Your task to perform on an android device: turn smart compose on in the gmail app Image 0: 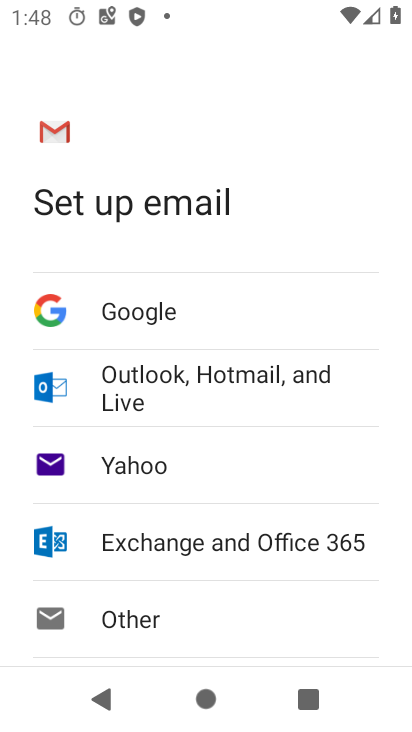
Step 0: press home button
Your task to perform on an android device: turn smart compose on in the gmail app Image 1: 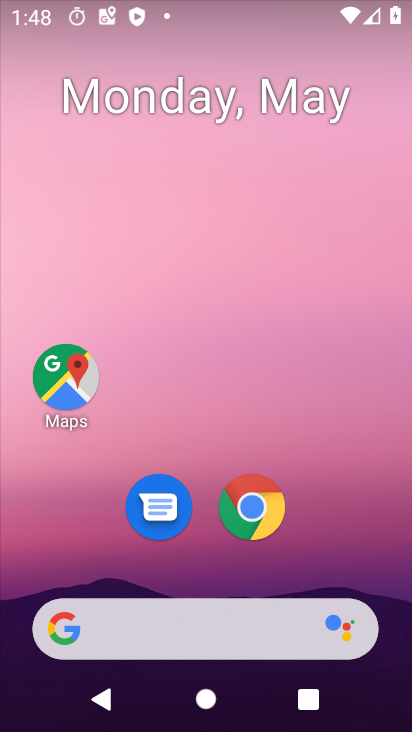
Step 1: drag from (326, 554) to (307, 203)
Your task to perform on an android device: turn smart compose on in the gmail app Image 2: 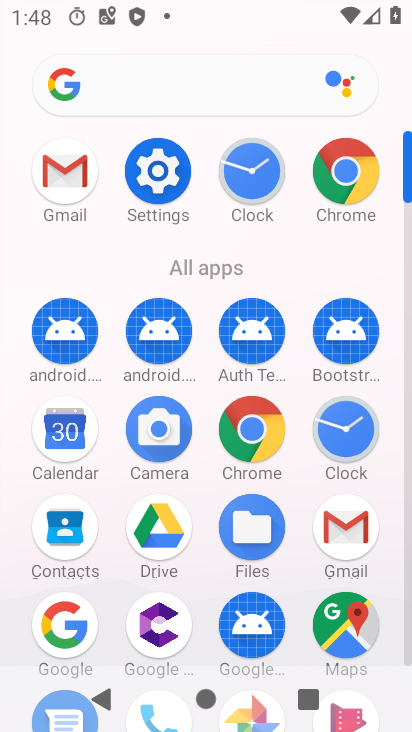
Step 2: click (64, 201)
Your task to perform on an android device: turn smart compose on in the gmail app Image 3: 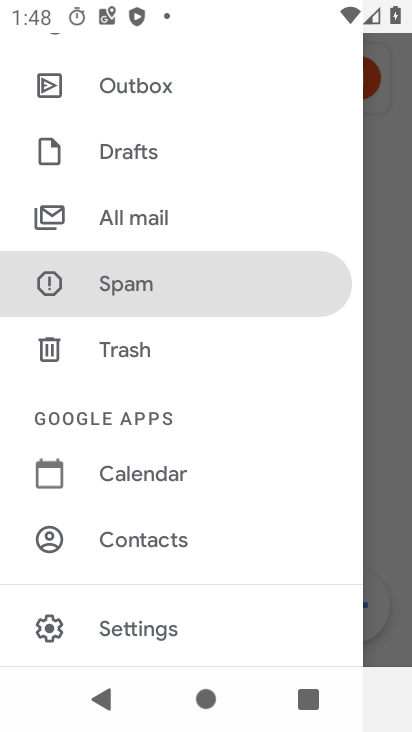
Step 3: drag from (216, 179) to (251, 555)
Your task to perform on an android device: turn smart compose on in the gmail app Image 4: 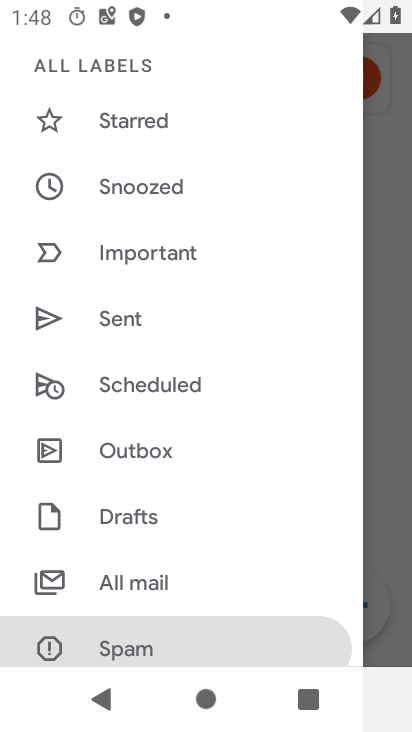
Step 4: drag from (234, 525) to (207, 198)
Your task to perform on an android device: turn smart compose on in the gmail app Image 5: 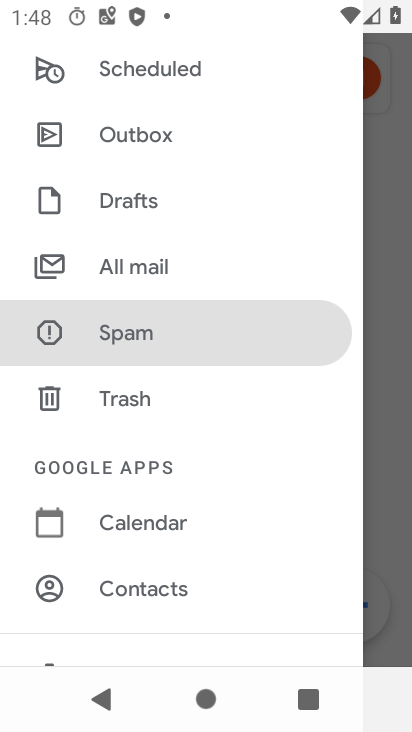
Step 5: drag from (194, 507) to (195, 193)
Your task to perform on an android device: turn smart compose on in the gmail app Image 6: 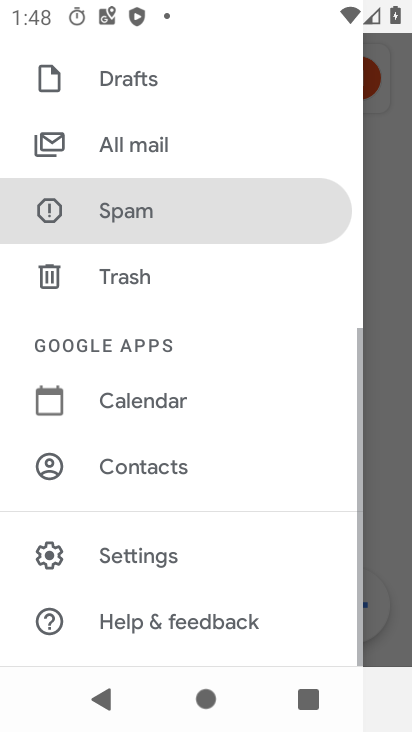
Step 6: click (145, 565)
Your task to perform on an android device: turn smart compose on in the gmail app Image 7: 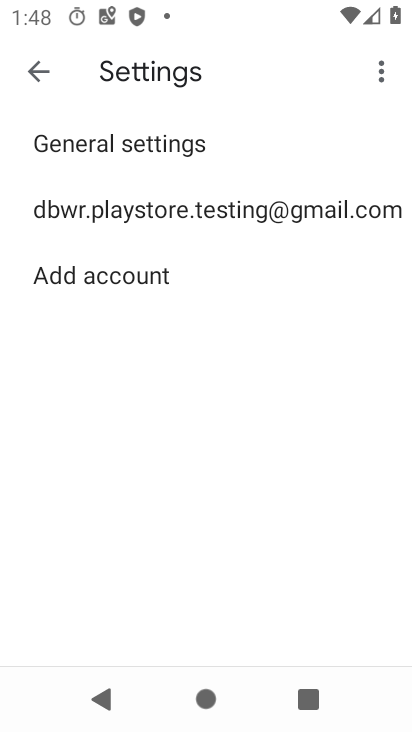
Step 7: click (204, 213)
Your task to perform on an android device: turn smart compose on in the gmail app Image 8: 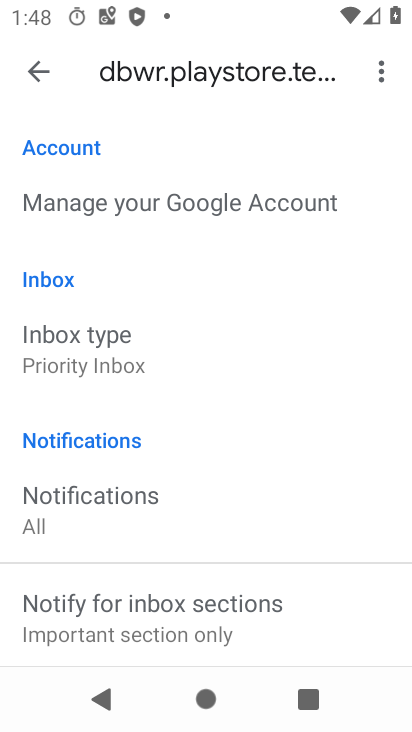
Step 8: task complete